Your task to perform on an android device: open chrome and create a bookmark for the current page Image 0: 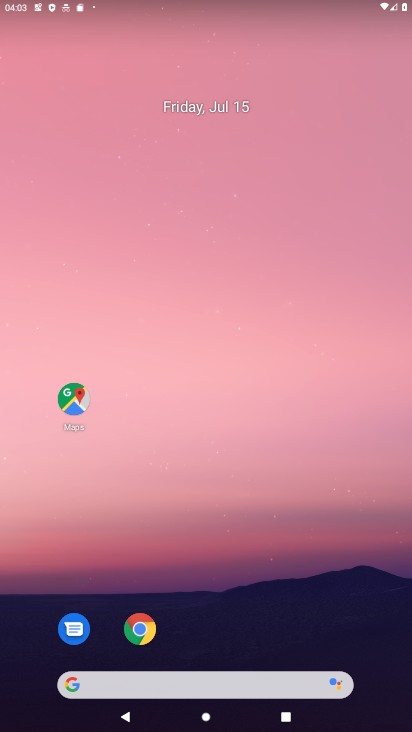
Step 0: drag from (268, 570) to (299, 128)
Your task to perform on an android device: open chrome and create a bookmark for the current page Image 1: 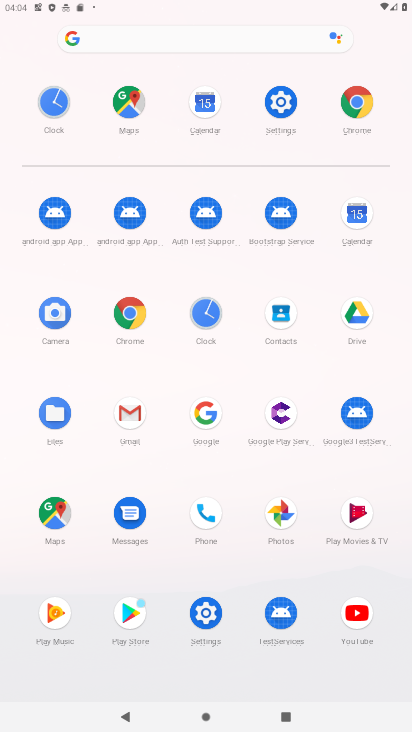
Step 1: click (124, 307)
Your task to perform on an android device: open chrome and create a bookmark for the current page Image 2: 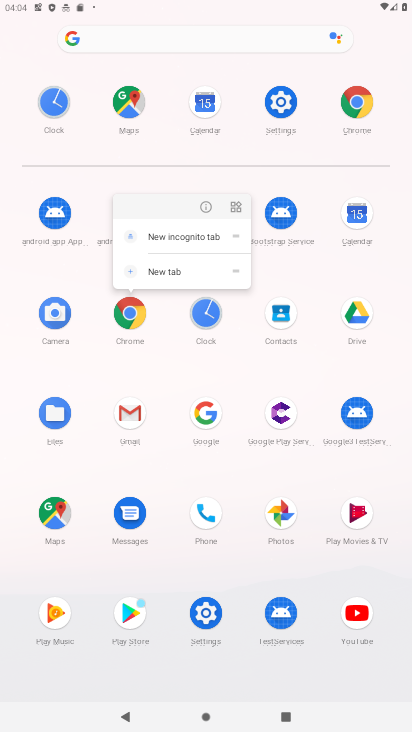
Step 2: click (127, 299)
Your task to perform on an android device: open chrome and create a bookmark for the current page Image 3: 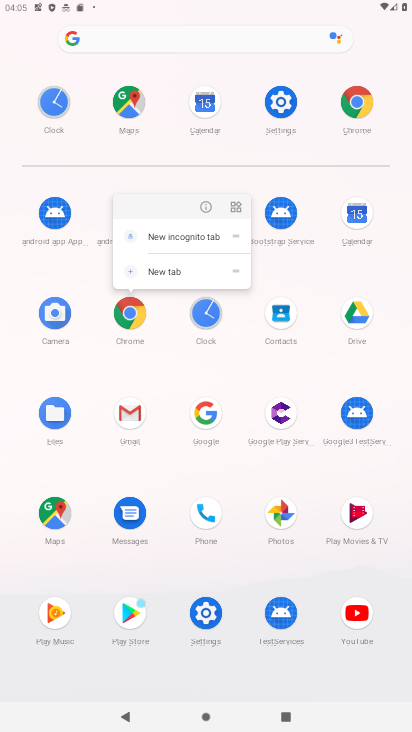
Step 3: click (136, 305)
Your task to perform on an android device: open chrome and create a bookmark for the current page Image 4: 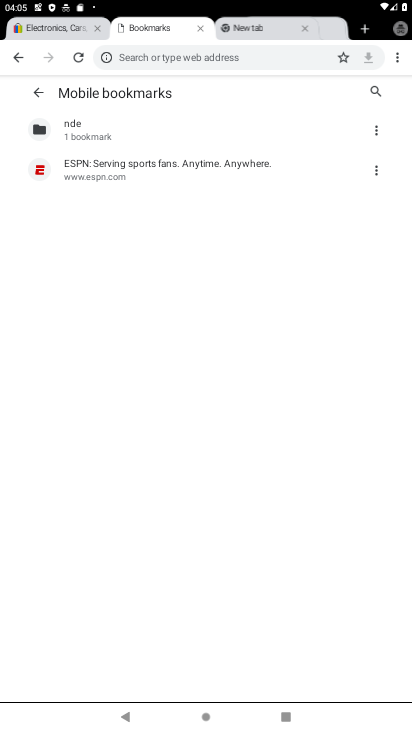
Step 4: drag from (393, 55) to (200, 77)
Your task to perform on an android device: open chrome and create a bookmark for the current page Image 5: 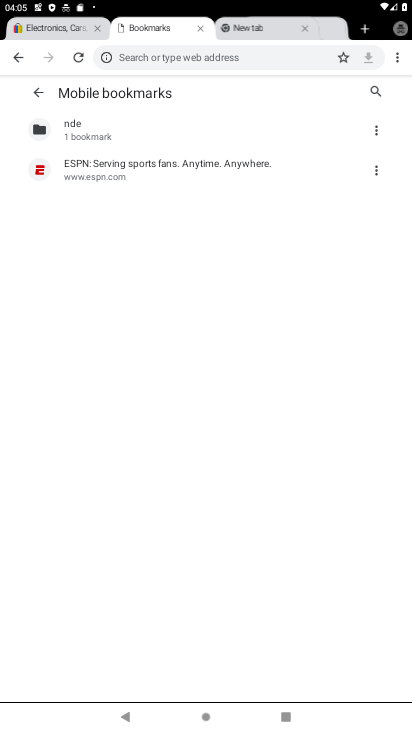
Step 5: click (344, 53)
Your task to perform on an android device: open chrome and create a bookmark for the current page Image 6: 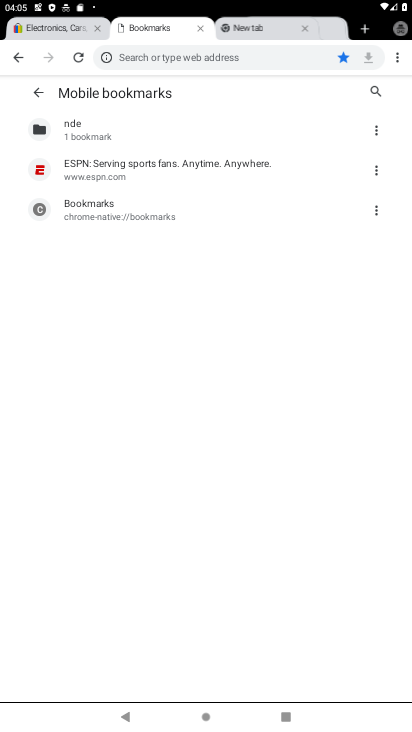
Step 6: task complete